Your task to perform on an android device: empty trash in the gmail app Image 0: 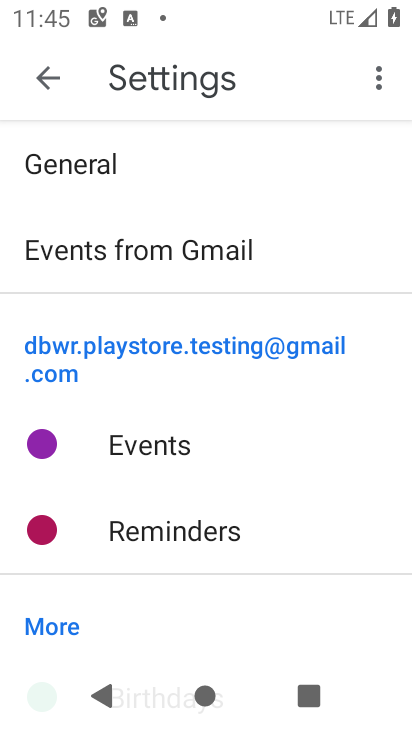
Step 0: press home button
Your task to perform on an android device: empty trash in the gmail app Image 1: 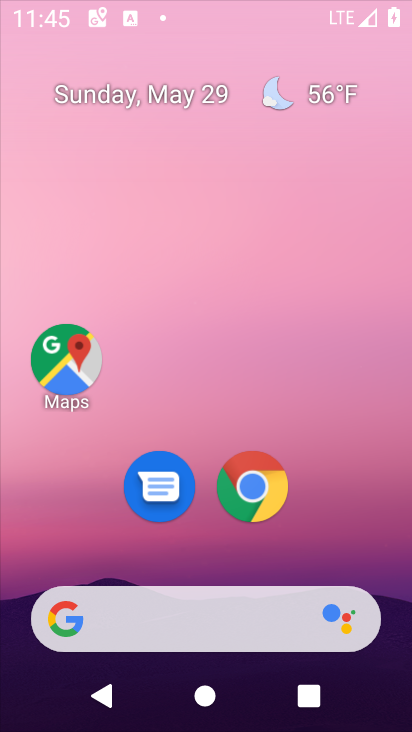
Step 1: drag from (208, 622) to (244, 113)
Your task to perform on an android device: empty trash in the gmail app Image 2: 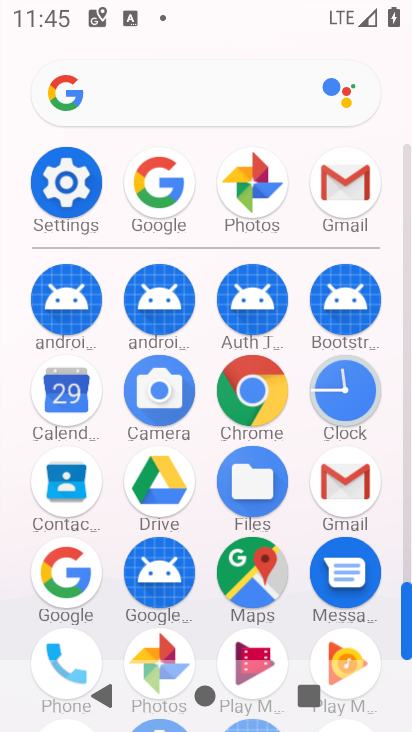
Step 2: click (351, 485)
Your task to perform on an android device: empty trash in the gmail app Image 3: 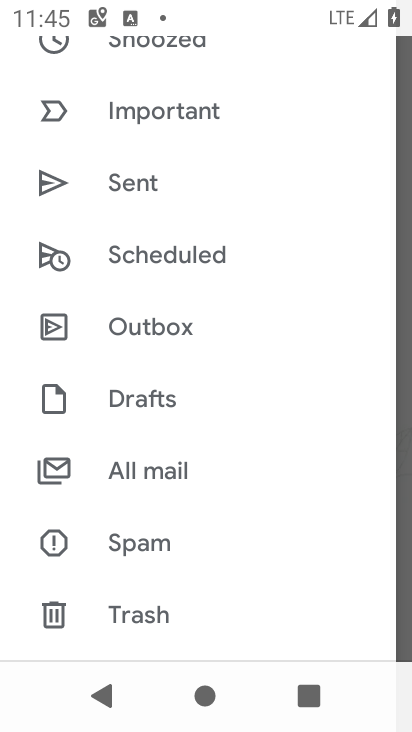
Step 3: click (160, 618)
Your task to perform on an android device: empty trash in the gmail app Image 4: 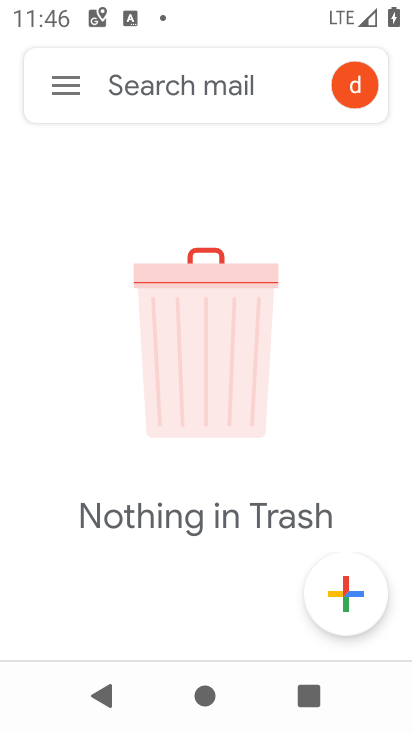
Step 4: task complete